Your task to perform on an android device: Open Google Maps Image 0: 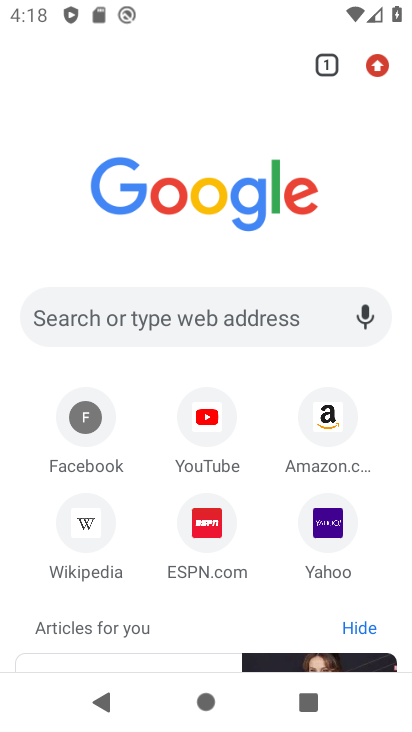
Step 0: press home button
Your task to perform on an android device: Open Google Maps Image 1: 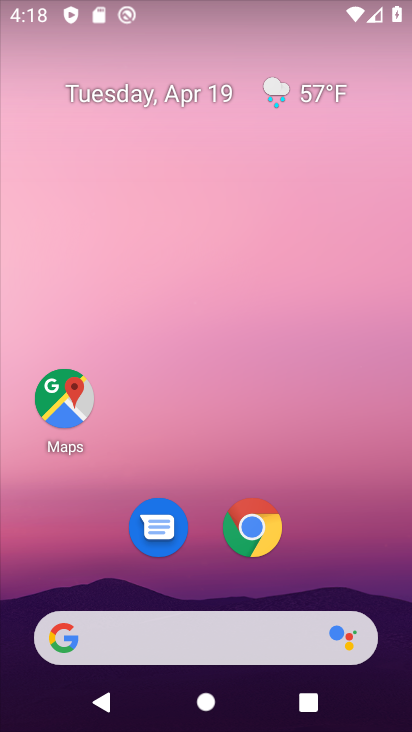
Step 1: click (64, 399)
Your task to perform on an android device: Open Google Maps Image 2: 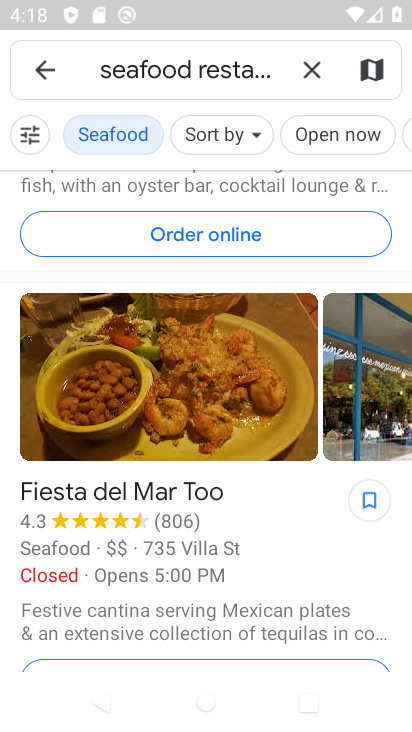
Step 2: task complete